Your task to perform on an android device: Open Amazon Image 0: 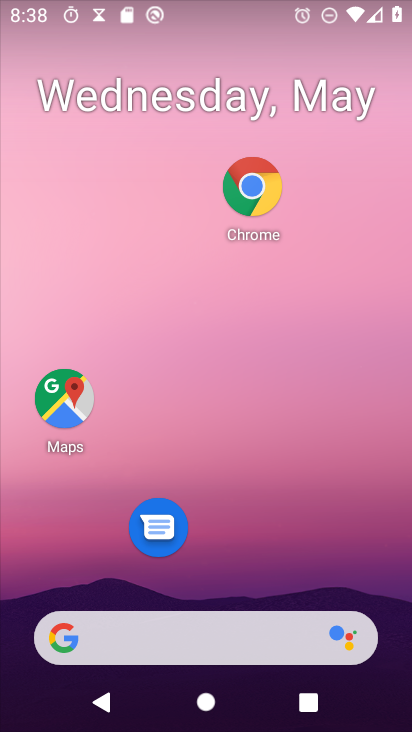
Step 0: drag from (284, 445) to (329, 69)
Your task to perform on an android device: Open Amazon Image 1: 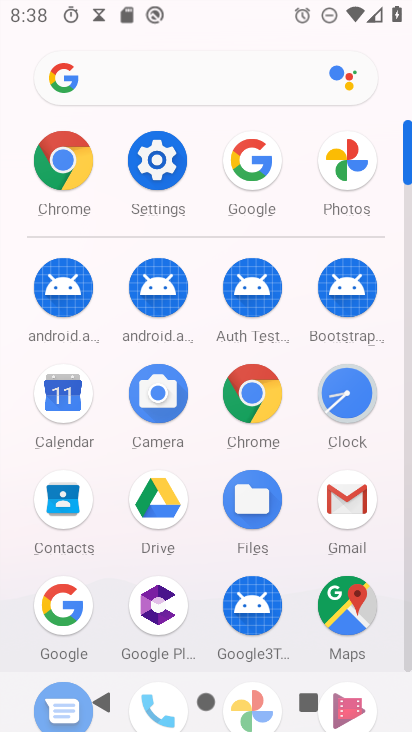
Step 1: click (251, 390)
Your task to perform on an android device: Open Amazon Image 2: 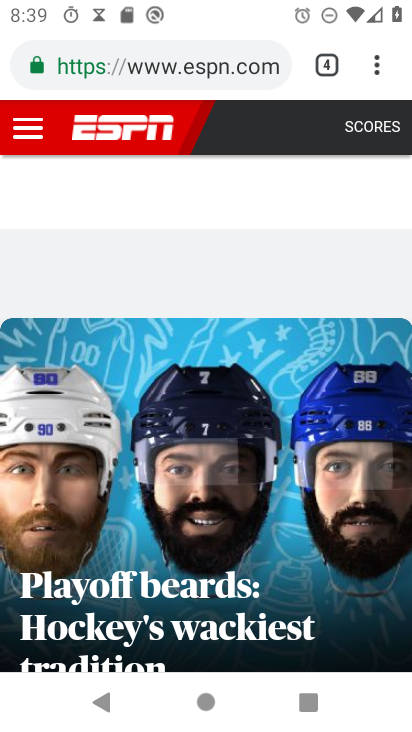
Step 2: drag from (379, 59) to (180, 129)
Your task to perform on an android device: Open Amazon Image 3: 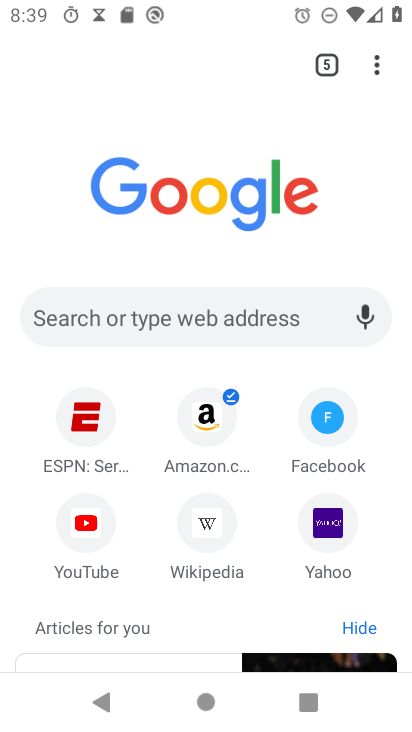
Step 3: click (212, 419)
Your task to perform on an android device: Open Amazon Image 4: 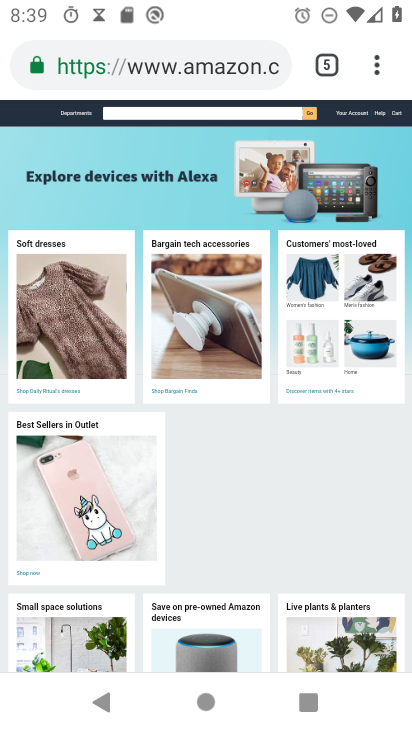
Step 4: task complete